Your task to perform on an android device: change notification settings in the gmail app Image 0: 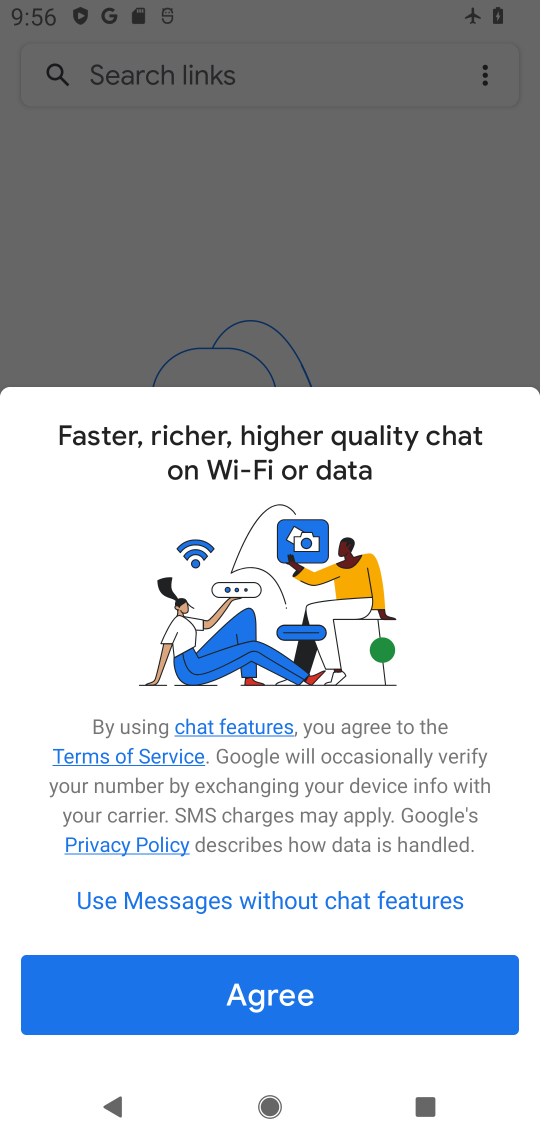
Step 0: press home button
Your task to perform on an android device: change notification settings in the gmail app Image 1: 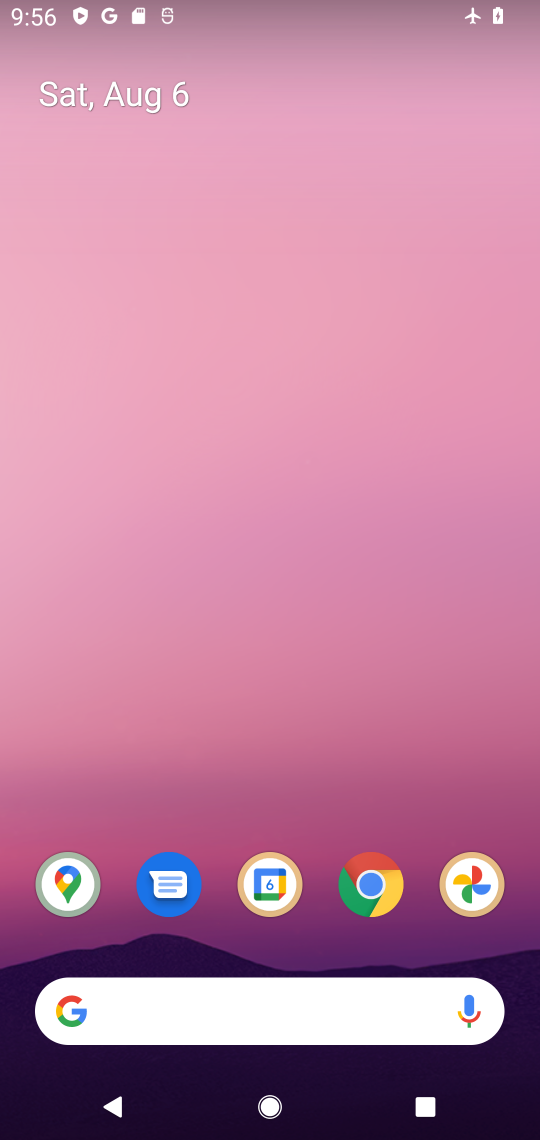
Step 1: drag from (424, 947) to (380, 143)
Your task to perform on an android device: change notification settings in the gmail app Image 2: 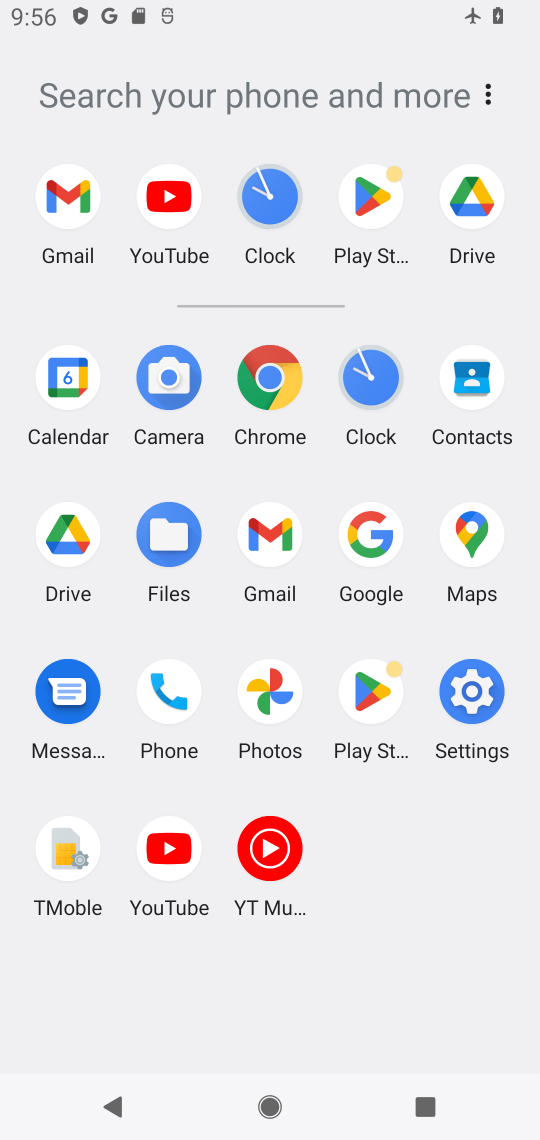
Step 2: click (268, 533)
Your task to perform on an android device: change notification settings in the gmail app Image 3: 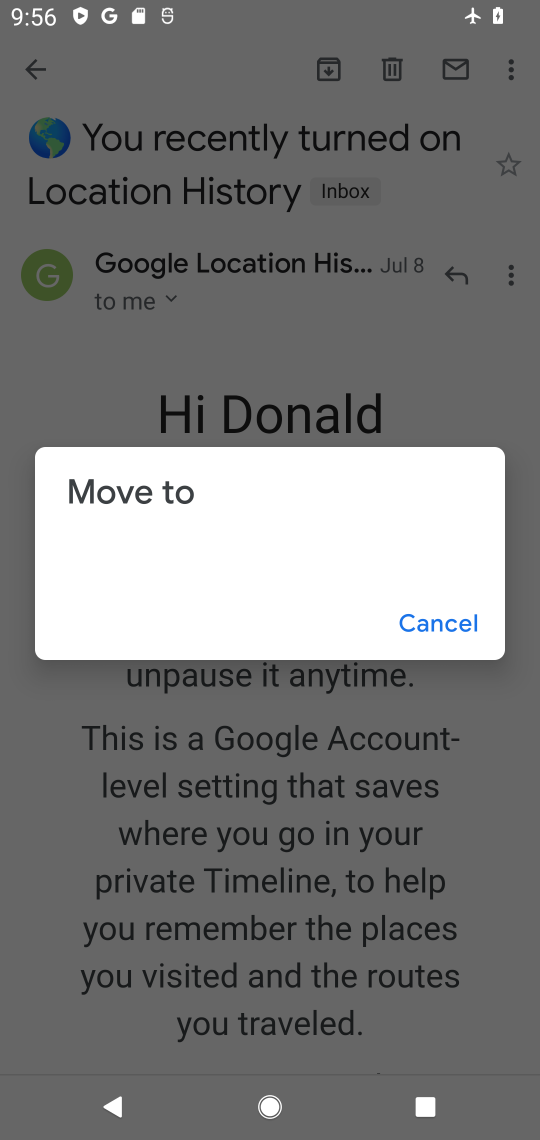
Step 3: click (439, 629)
Your task to perform on an android device: change notification settings in the gmail app Image 4: 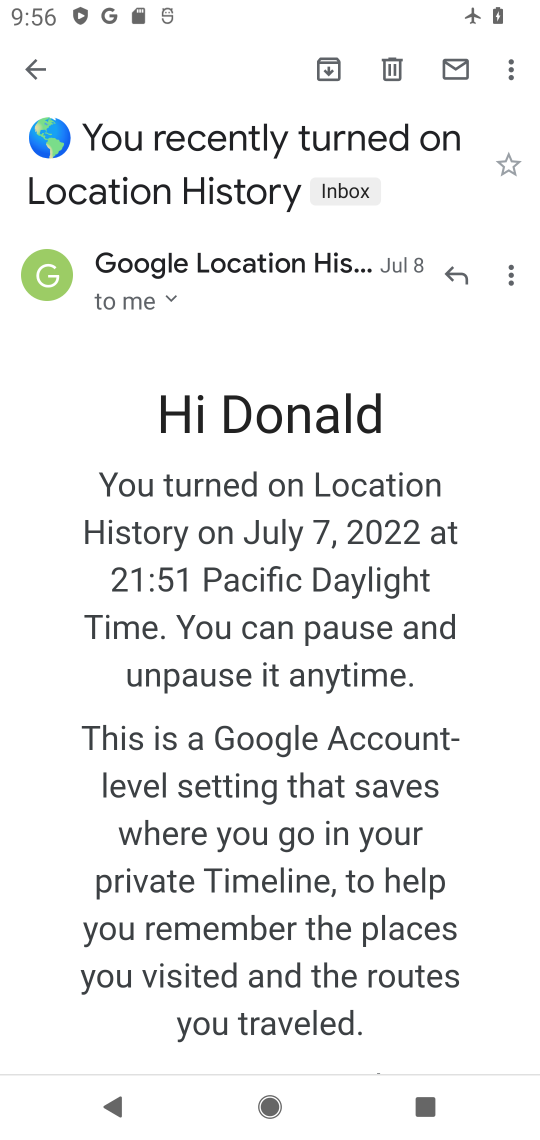
Step 4: press back button
Your task to perform on an android device: change notification settings in the gmail app Image 5: 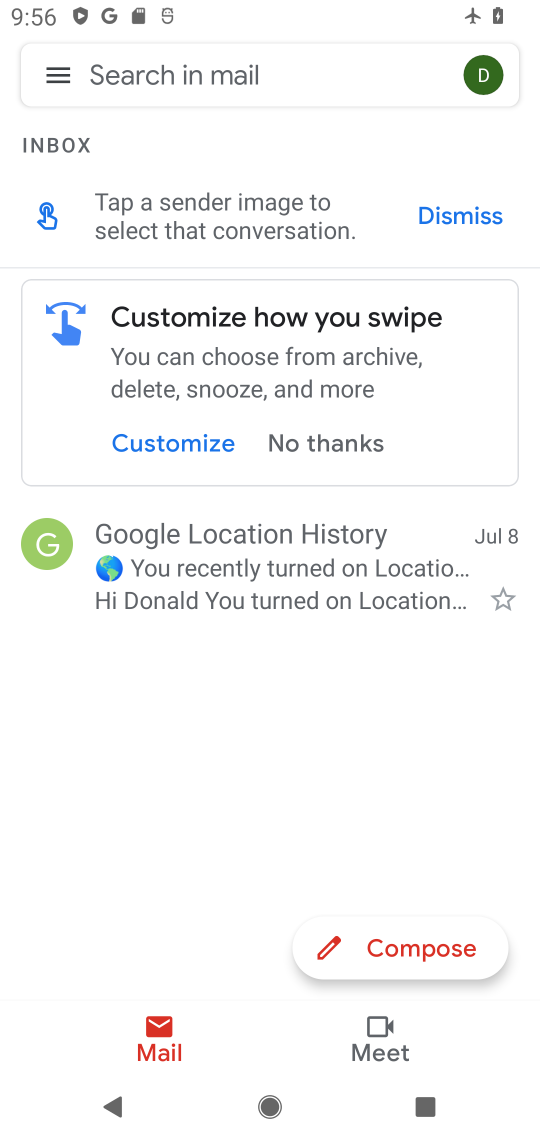
Step 5: click (54, 70)
Your task to perform on an android device: change notification settings in the gmail app Image 6: 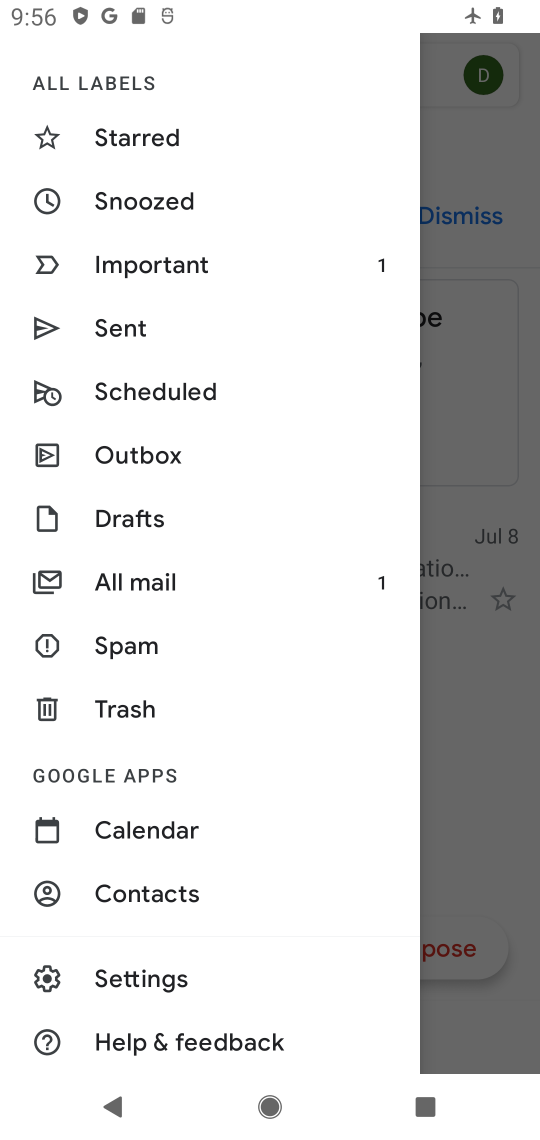
Step 6: click (129, 985)
Your task to perform on an android device: change notification settings in the gmail app Image 7: 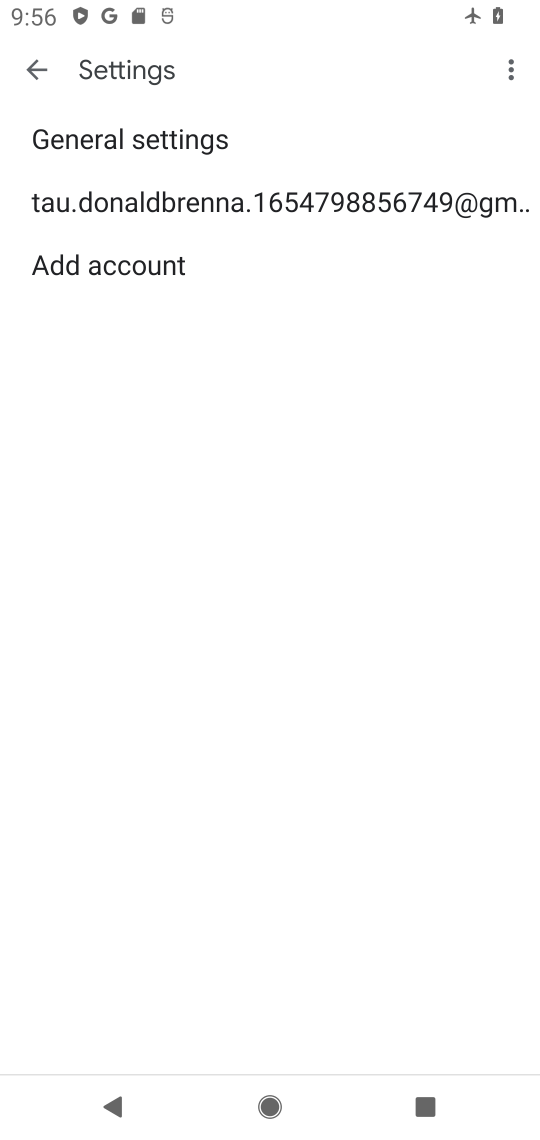
Step 7: click (228, 200)
Your task to perform on an android device: change notification settings in the gmail app Image 8: 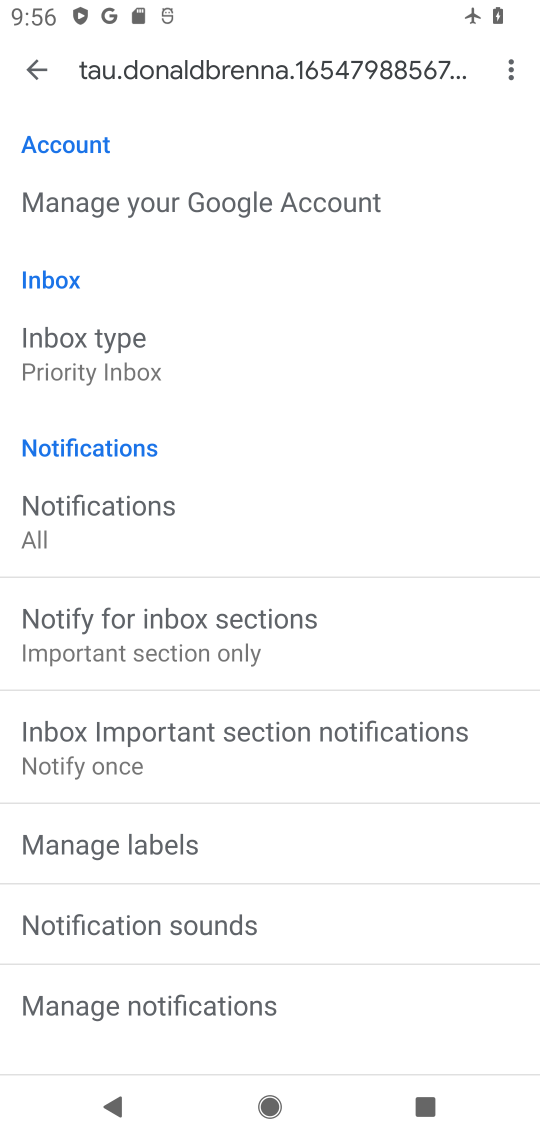
Step 8: drag from (355, 959) to (375, 326)
Your task to perform on an android device: change notification settings in the gmail app Image 9: 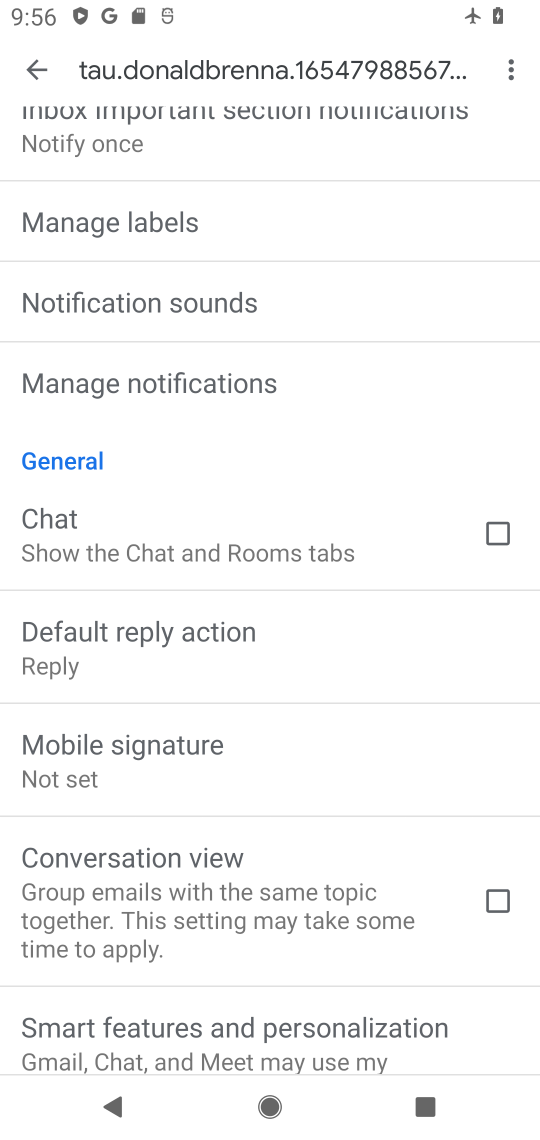
Step 9: click (164, 387)
Your task to perform on an android device: change notification settings in the gmail app Image 10: 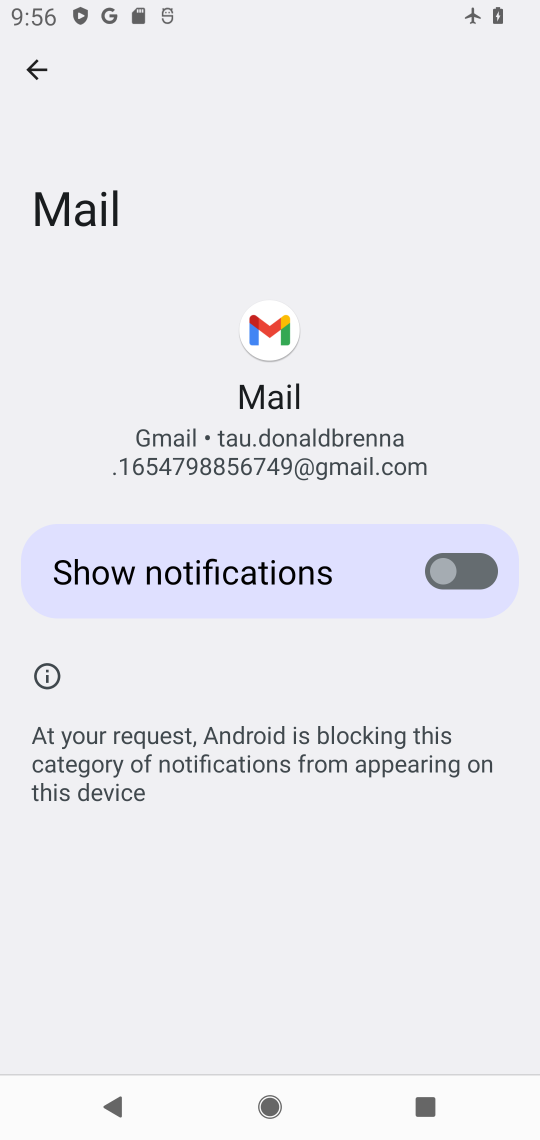
Step 10: click (480, 571)
Your task to perform on an android device: change notification settings in the gmail app Image 11: 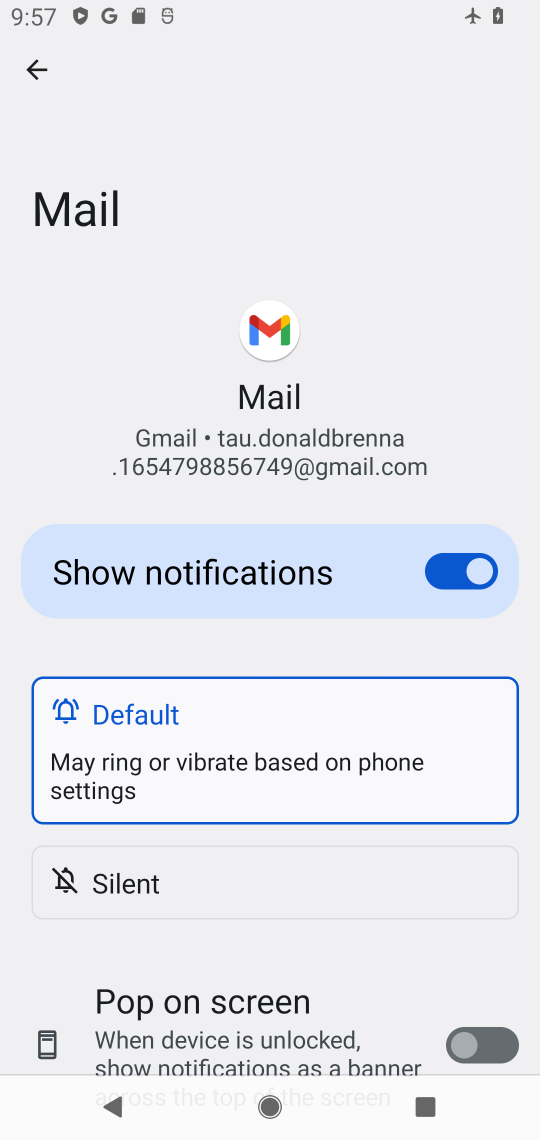
Step 11: task complete